Your task to perform on an android device: turn notification dots on Image 0: 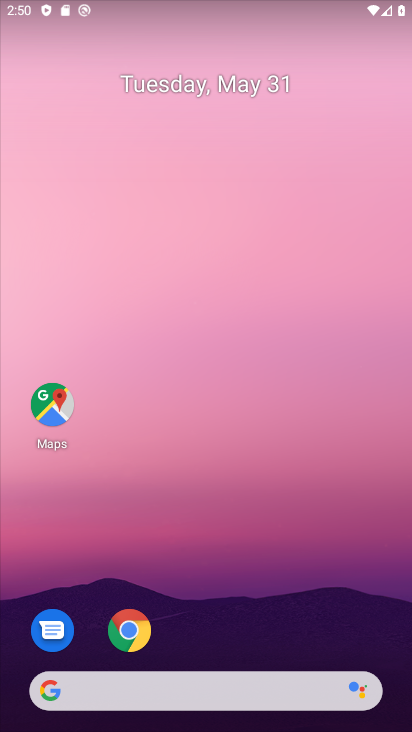
Step 0: drag from (199, 625) to (232, 242)
Your task to perform on an android device: turn notification dots on Image 1: 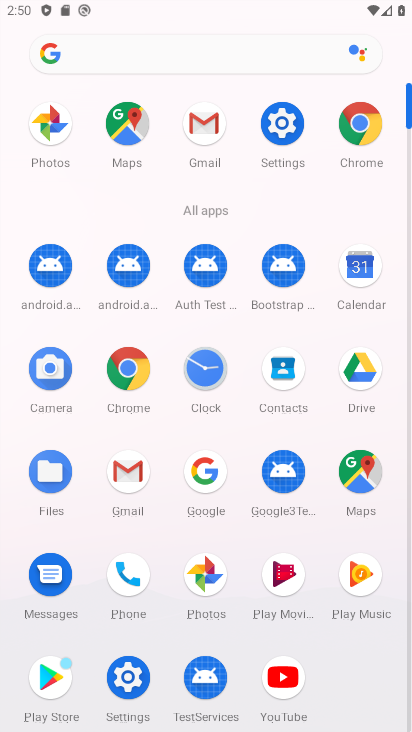
Step 1: click (270, 139)
Your task to perform on an android device: turn notification dots on Image 2: 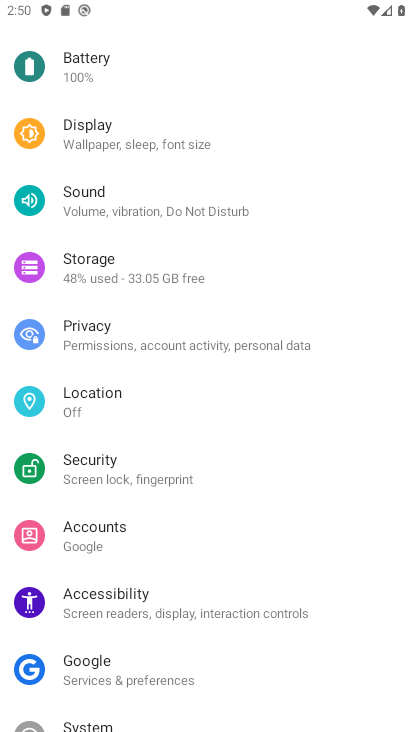
Step 2: drag from (212, 117) to (221, 545)
Your task to perform on an android device: turn notification dots on Image 3: 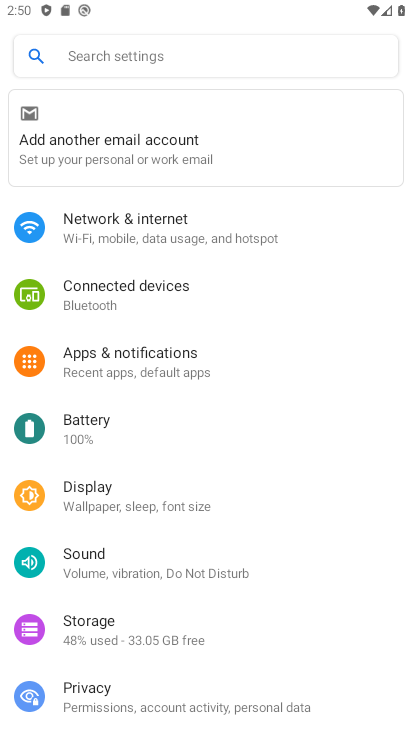
Step 3: click (116, 376)
Your task to perform on an android device: turn notification dots on Image 4: 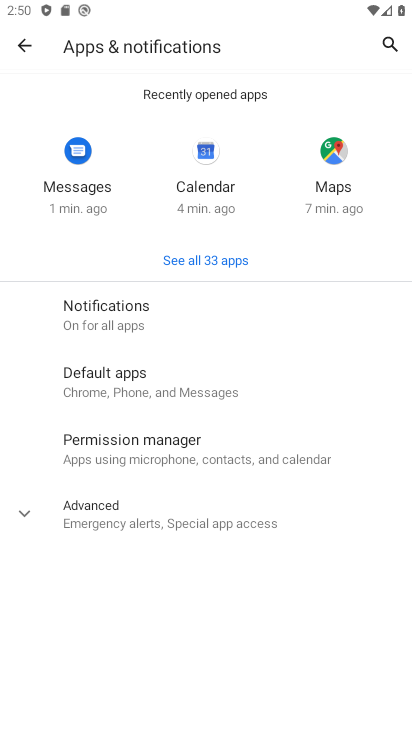
Step 4: click (135, 526)
Your task to perform on an android device: turn notification dots on Image 5: 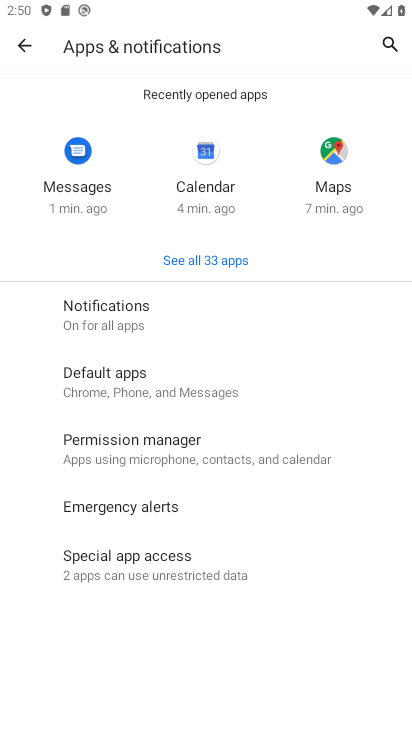
Step 5: click (182, 319)
Your task to perform on an android device: turn notification dots on Image 6: 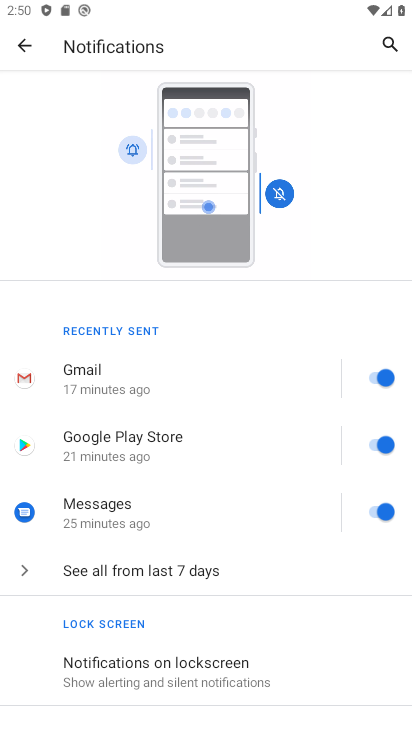
Step 6: drag from (213, 613) to (246, 15)
Your task to perform on an android device: turn notification dots on Image 7: 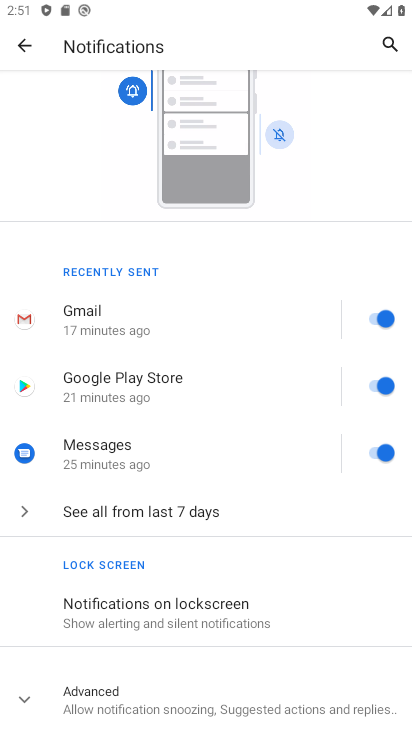
Step 7: click (148, 687)
Your task to perform on an android device: turn notification dots on Image 8: 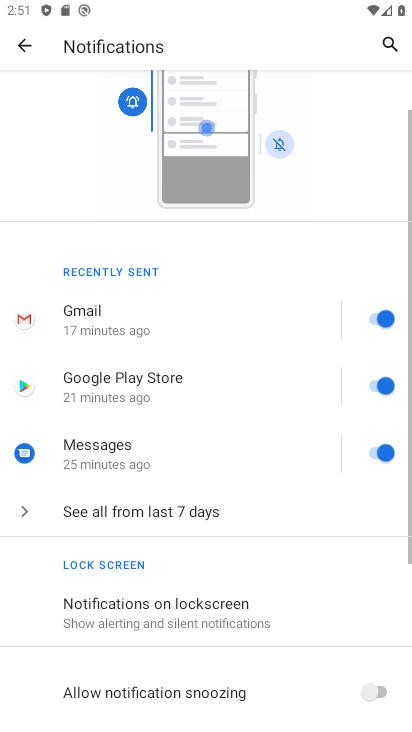
Step 8: task complete